Your task to perform on an android device: turn off notifications settings in the gmail app Image 0: 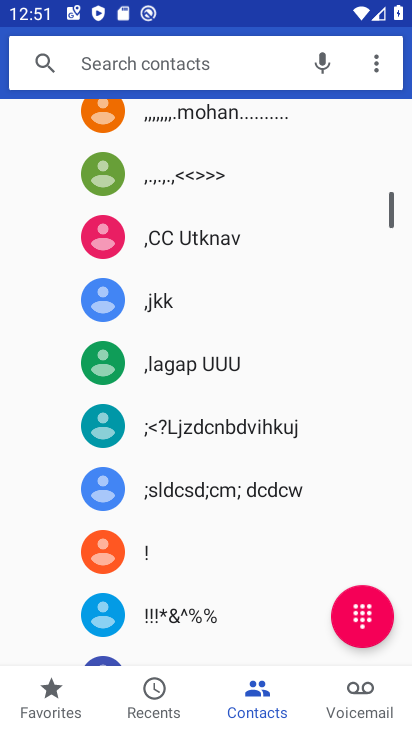
Step 0: press home button
Your task to perform on an android device: turn off notifications settings in the gmail app Image 1: 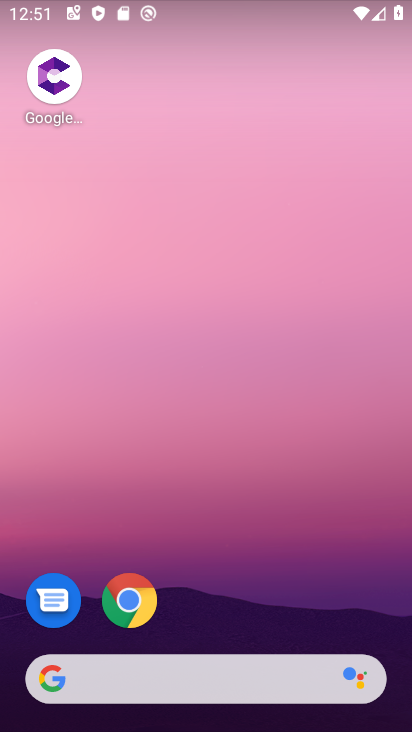
Step 1: drag from (268, 525) to (242, 361)
Your task to perform on an android device: turn off notifications settings in the gmail app Image 2: 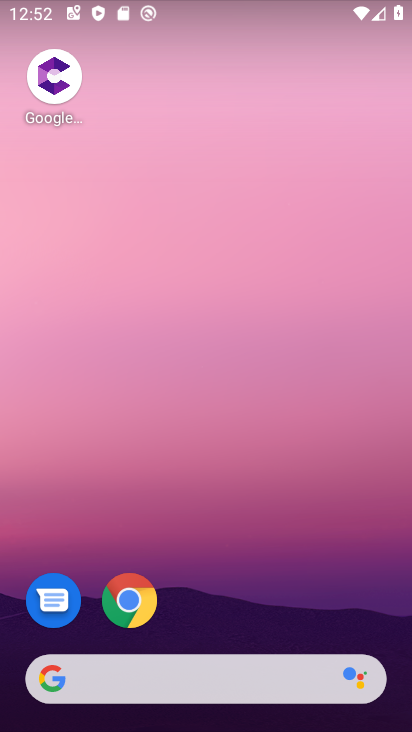
Step 2: drag from (287, 554) to (275, 68)
Your task to perform on an android device: turn off notifications settings in the gmail app Image 3: 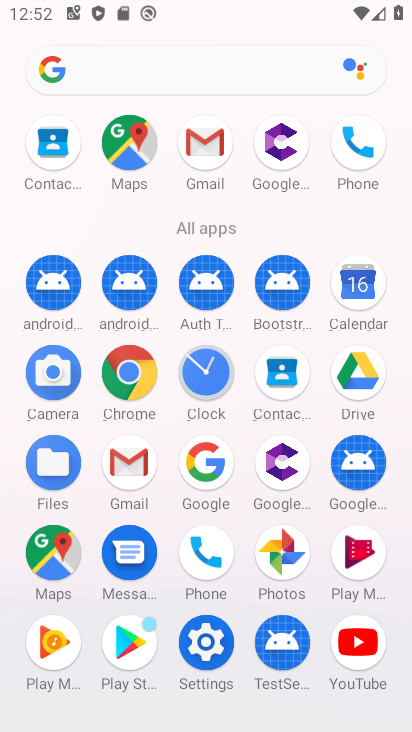
Step 3: click (207, 151)
Your task to perform on an android device: turn off notifications settings in the gmail app Image 4: 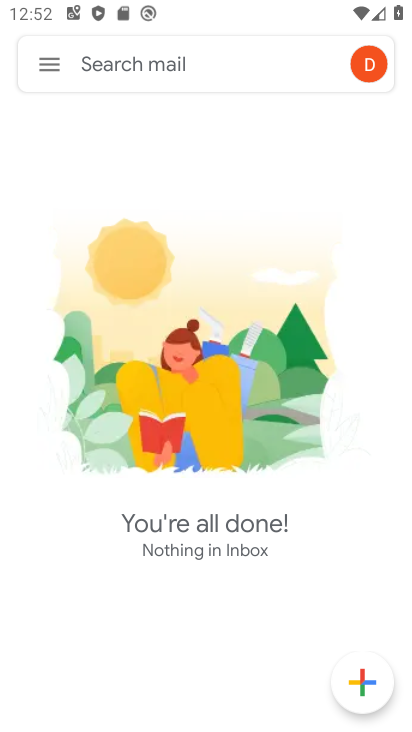
Step 4: click (42, 62)
Your task to perform on an android device: turn off notifications settings in the gmail app Image 5: 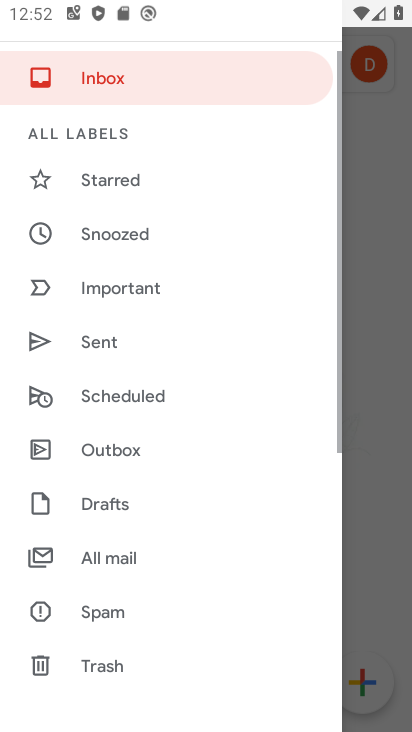
Step 5: drag from (122, 592) to (189, 96)
Your task to perform on an android device: turn off notifications settings in the gmail app Image 6: 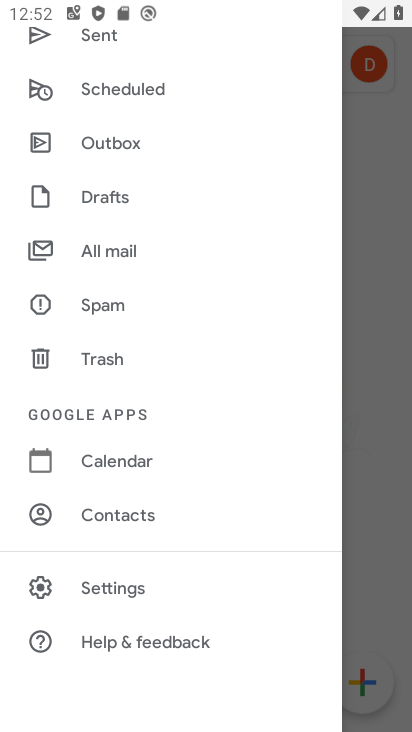
Step 6: click (119, 588)
Your task to perform on an android device: turn off notifications settings in the gmail app Image 7: 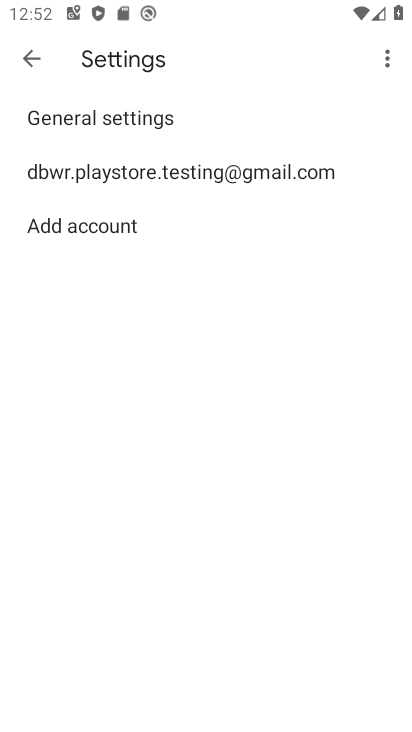
Step 7: click (82, 176)
Your task to perform on an android device: turn off notifications settings in the gmail app Image 8: 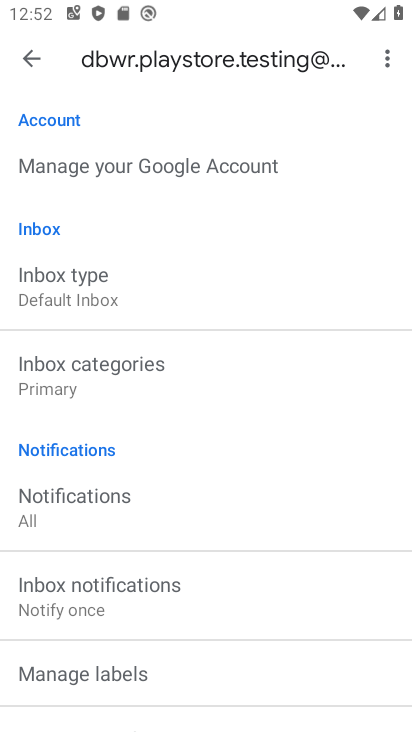
Step 8: click (114, 503)
Your task to perform on an android device: turn off notifications settings in the gmail app Image 9: 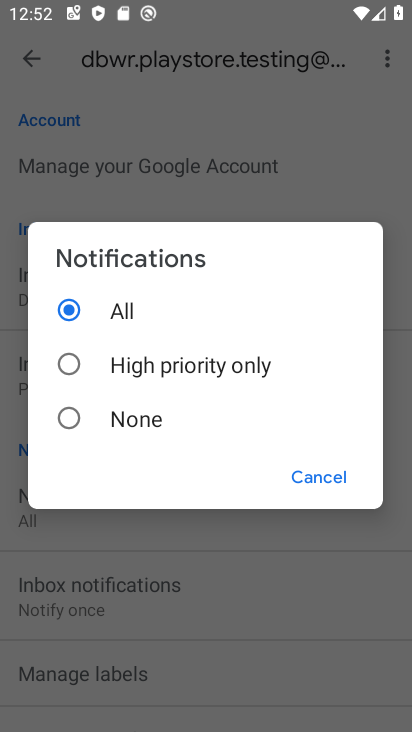
Step 9: click (118, 423)
Your task to perform on an android device: turn off notifications settings in the gmail app Image 10: 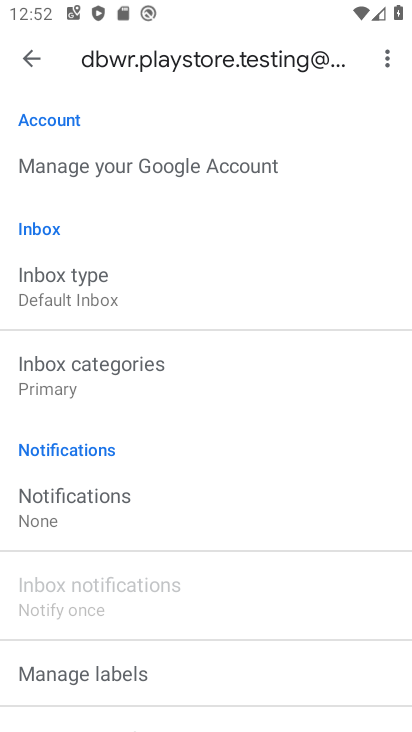
Step 10: task complete